Your task to perform on an android device: open app "Instagram" (install if not already installed) Image 0: 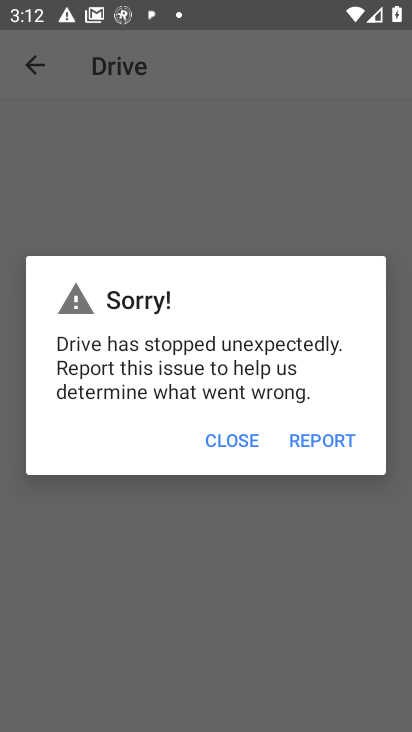
Step 0: press back button
Your task to perform on an android device: open app "Instagram" (install if not already installed) Image 1: 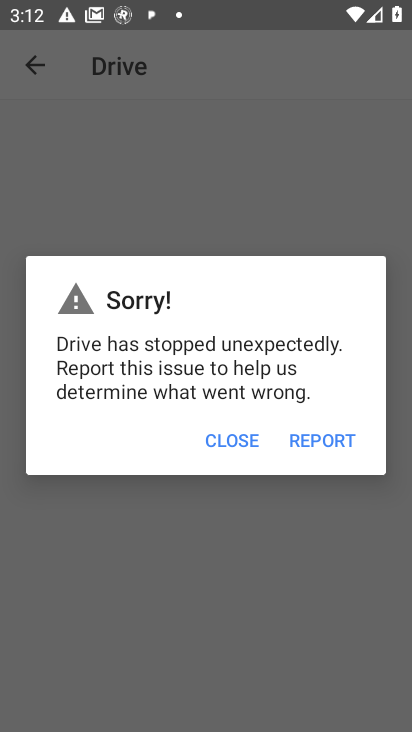
Step 1: press back button
Your task to perform on an android device: open app "Instagram" (install if not already installed) Image 2: 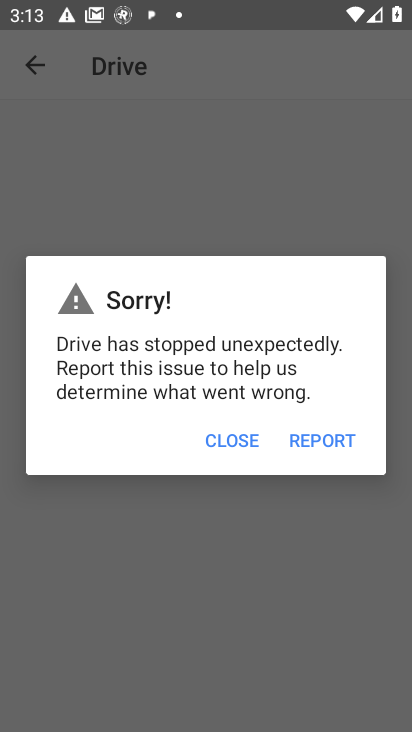
Step 2: press back button
Your task to perform on an android device: open app "Instagram" (install if not already installed) Image 3: 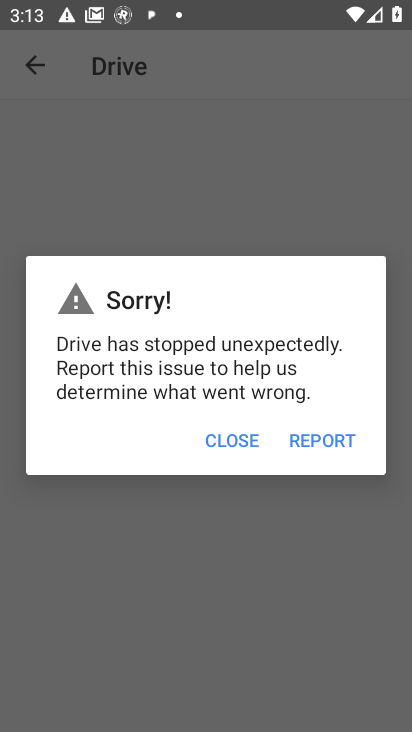
Step 3: press home button
Your task to perform on an android device: open app "Instagram" (install if not already installed) Image 4: 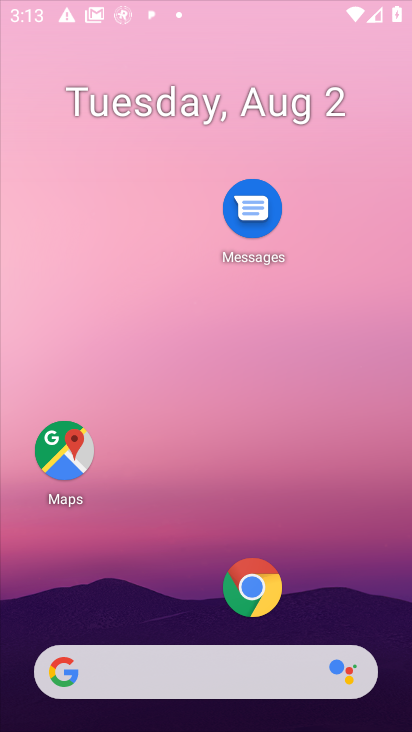
Step 4: press home button
Your task to perform on an android device: open app "Instagram" (install if not already installed) Image 5: 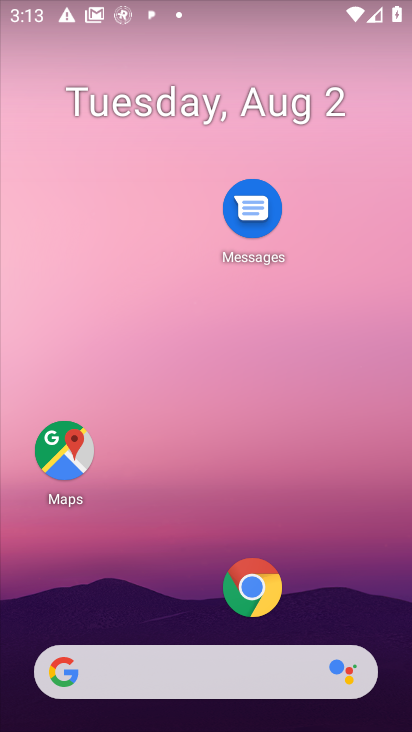
Step 5: drag from (184, 597) to (163, 284)
Your task to perform on an android device: open app "Instagram" (install if not already installed) Image 6: 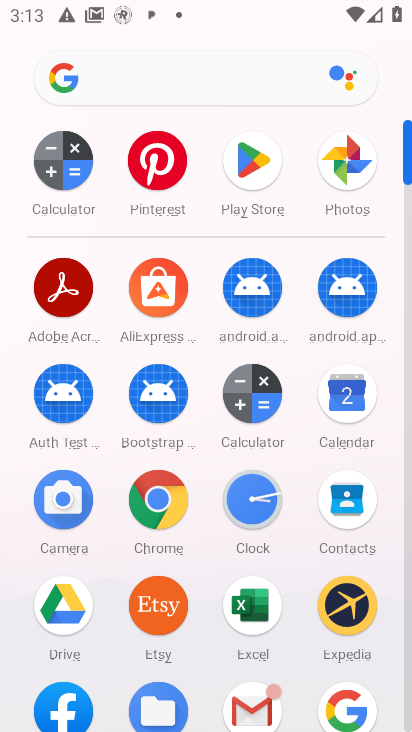
Step 6: click (264, 146)
Your task to perform on an android device: open app "Instagram" (install if not already installed) Image 7: 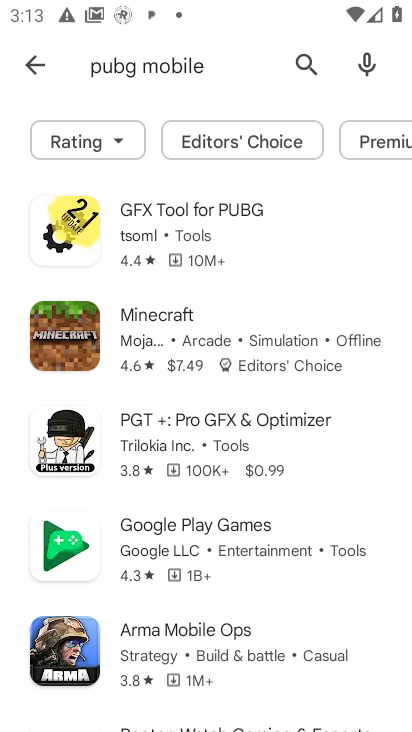
Step 7: click (296, 62)
Your task to perform on an android device: open app "Instagram" (install if not already installed) Image 8: 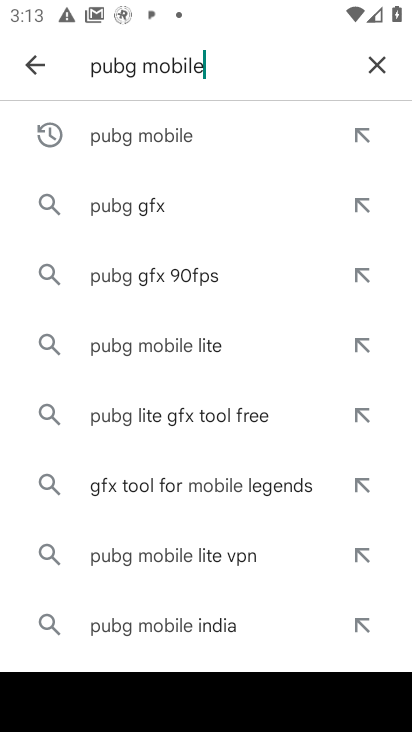
Step 8: click (366, 62)
Your task to perform on an android device: open app "Instagram" (install if not already installed) Image 9: 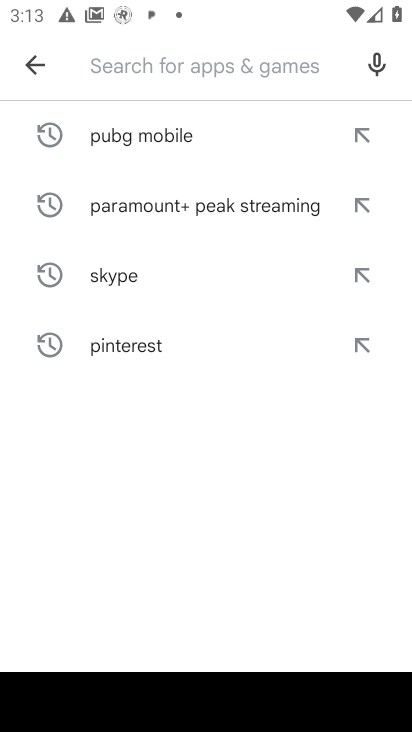
Step 9: type "Instagram"
Your task to perform on an android device: open app "Instagram" (install if not already installed) Image 10: 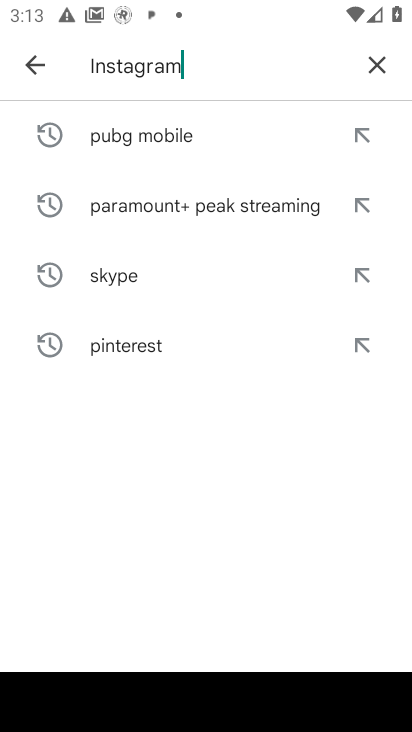
Step 10: type ""
Your task to perform on an android device: open app "Instagram" (install if not already installed) Image 11: 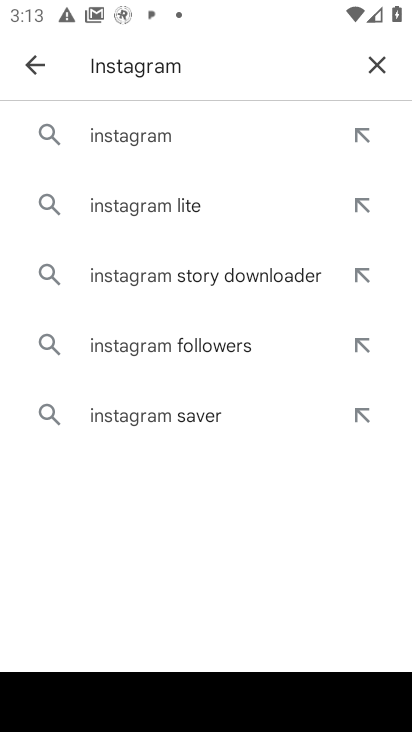
Step 11: click (195, 138)
Your task to perform on an android device: open app "Instagram" (install if not already installed) Image 12: 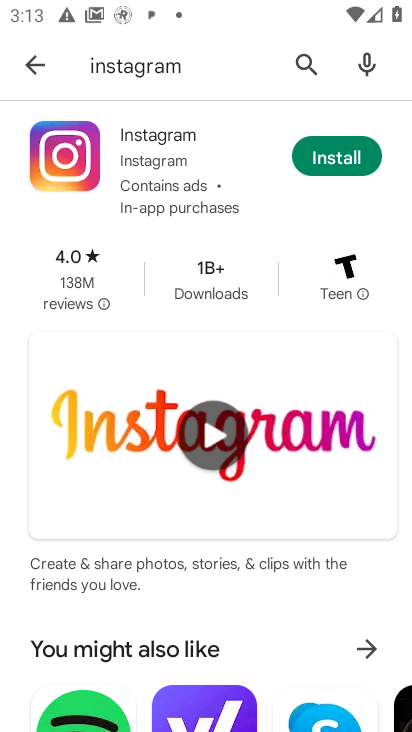
Step 12: click (340, 161)
Your task to perform on an android device: open app "Instagram" (install if not already installed) Image 13: 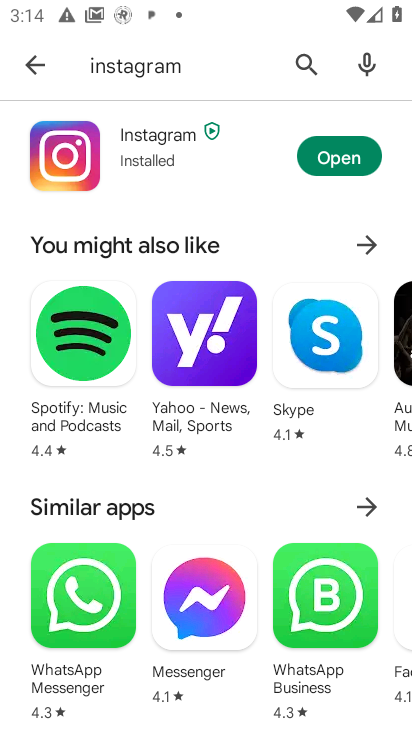
Step 13: click (340, 161)
Your task to perform on an android device: open app "Instagram" (install if not already installed) Image 14: 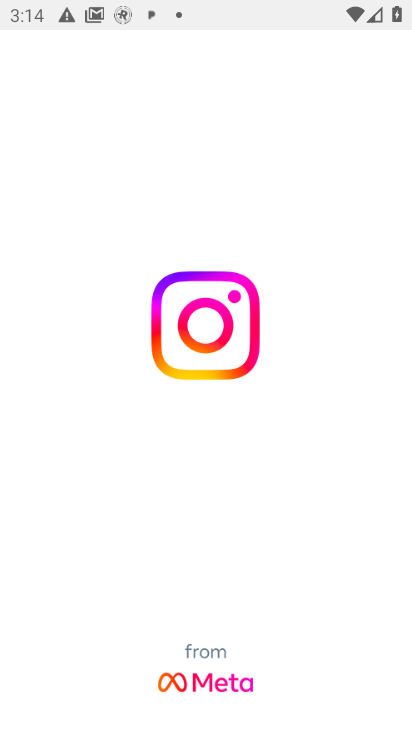
Step 14: task complete